Your task to perform on an android device: turn off data saver in the chrome app Image 0: 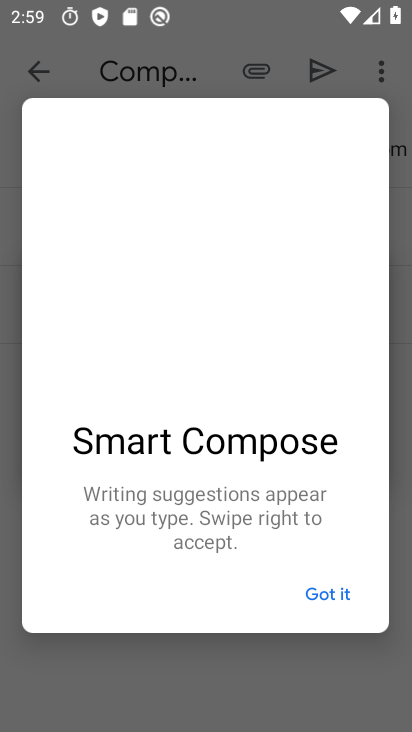
Step 0: press home button
Your task to perform on an android device: turn off data saver in the chrome app Image 1: 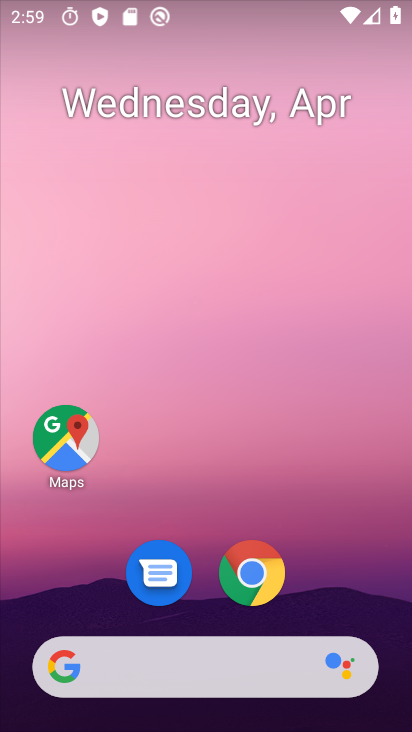
Step 1: click (246, 572)
Your task to perform on an android device: turn off data saver in the chrome app Image 2: 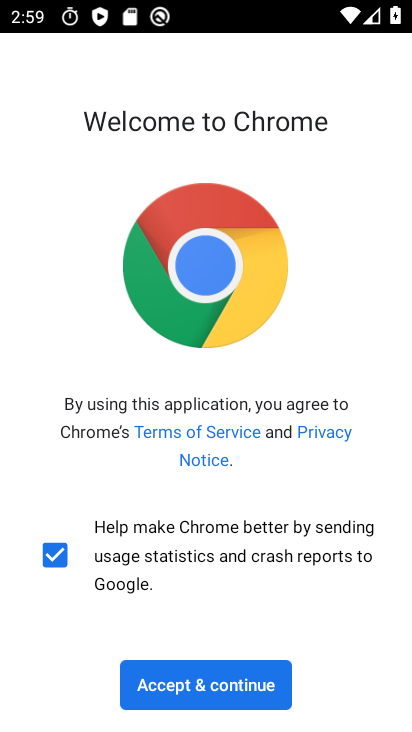
Step 2: click (236, 682)
Your task to perform on an android device: turn off data saver in the chrome app Image 3: 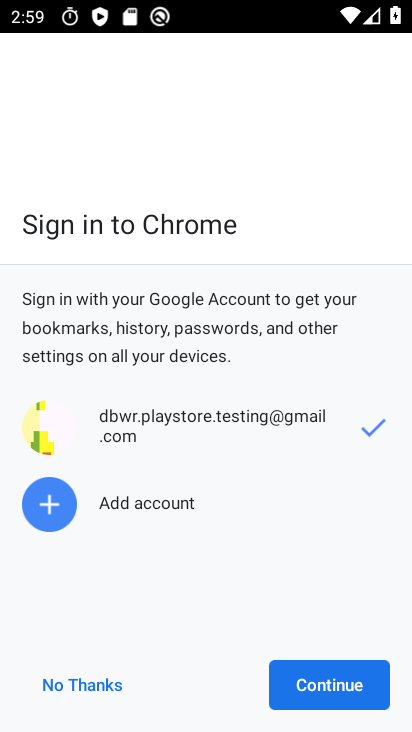
Step 3: click (331, 683)
Your task to perform on an android device: turn off data saver in the chrome app Image 4: 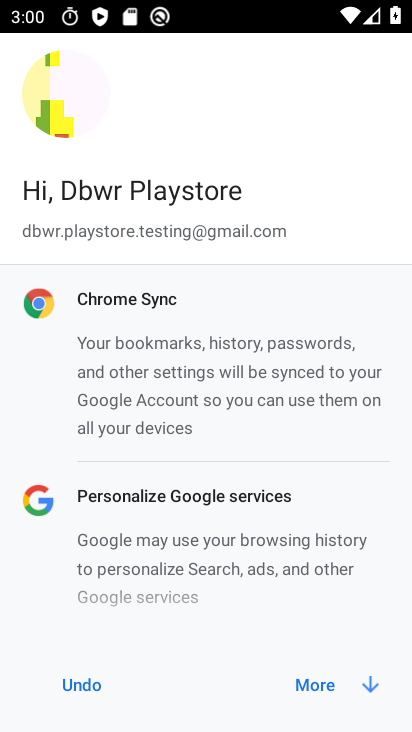
Step 4: click (313, 681)
Your task to perform on an android device: turn off data saver in the chrome app Image 5: 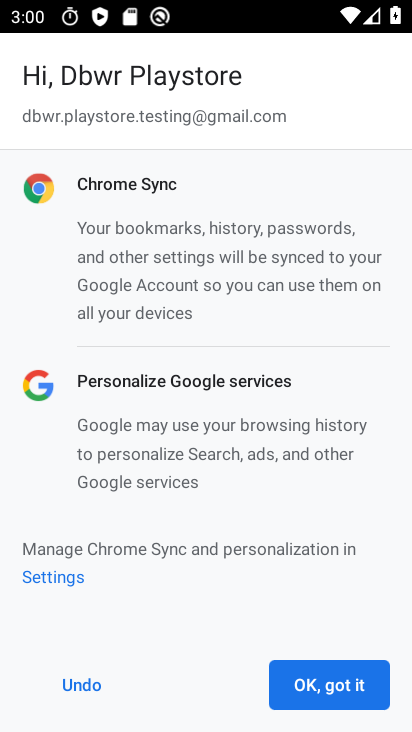
Step 5: click (313, 681)
Your task to perform on an android device: turn off data saver in the chrome app Image 6: 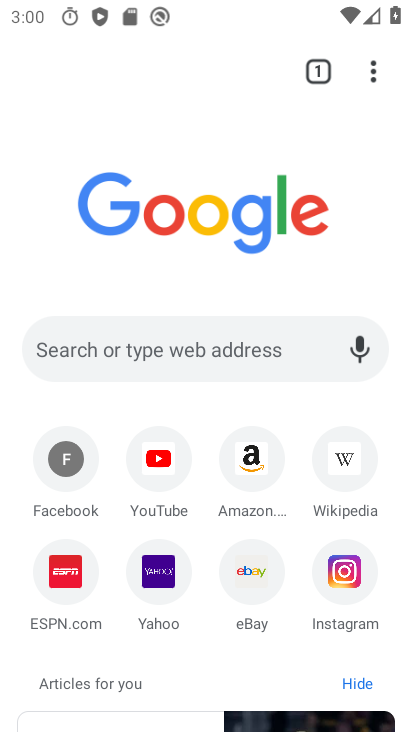
Step 6: click (375, 79)
Your task to perform on an android device: turn off data saver in the chrome app Image 7: 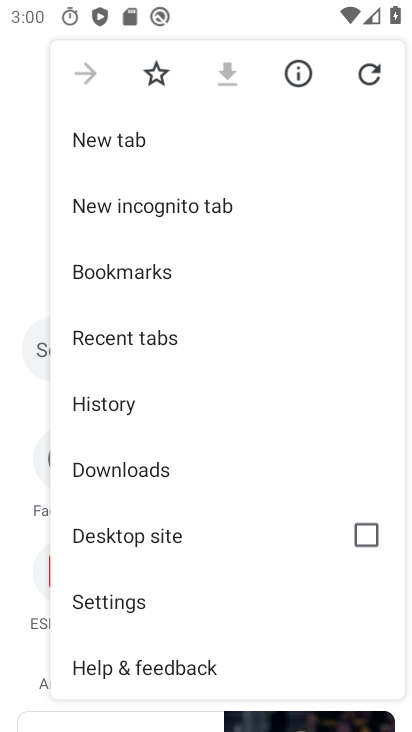
Step 7: click (111, 600)
Your task to perform on an android device: turn off data saver in the chrome app Image 8: 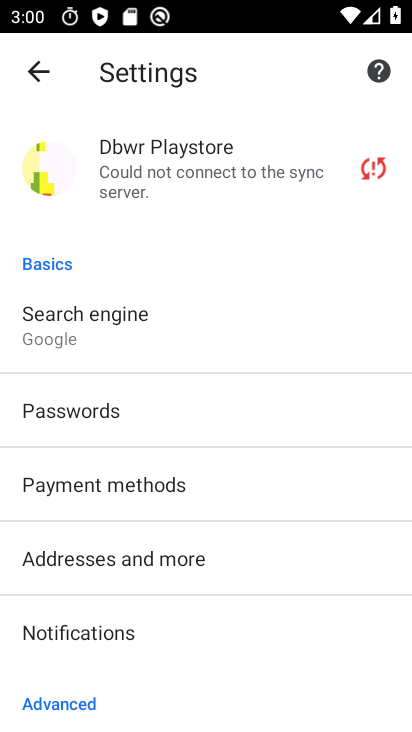
Step 8: drag from (209, 641) to (198, 245)
Your task to perform on an android device: turn off data saver in the chrome app Image 9: 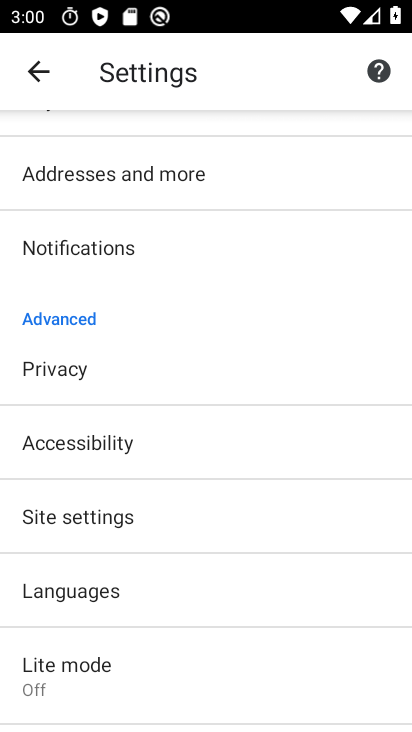
Step 9: click (80, 661)
Your task to perform on an android device: turn off data saver in the chrome app Image 10: 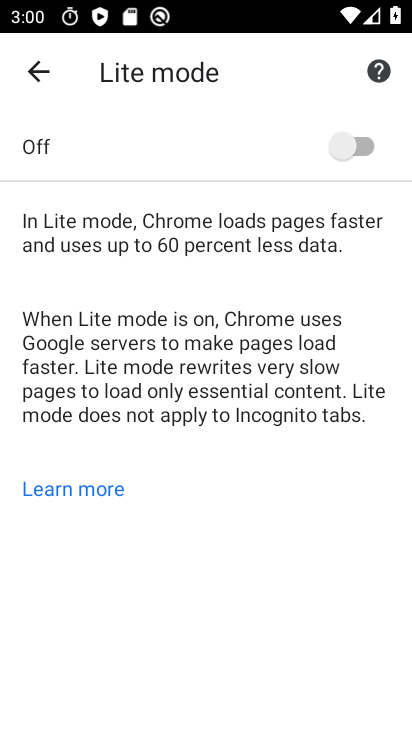
Step 10: task complete